Your task to perform on an android device: Go to Wikipedia Image 0: 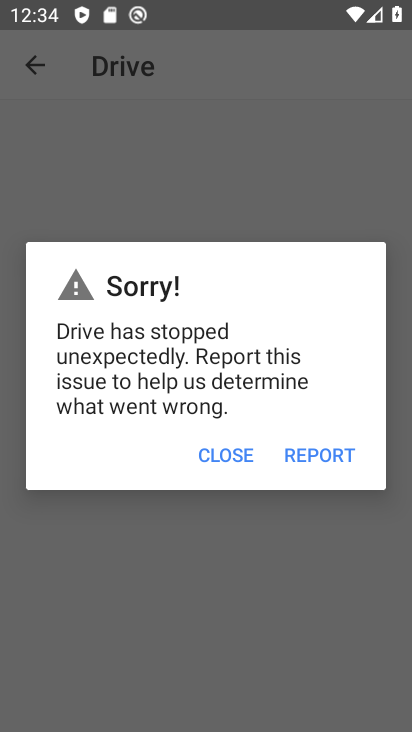
Step 0: press home button
Your task to perform on an android device: Go to Wikipedia Image 1: 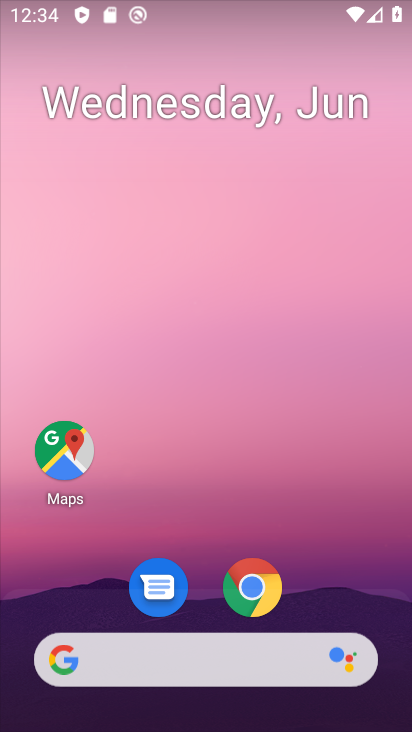
Step 1: click (247, 577)
Your task to perform on an android device: Go to Wikipedia Image 2: 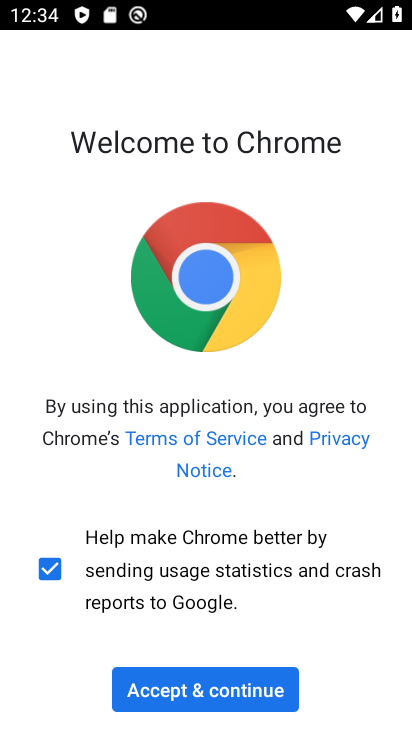
Step 2: click (202, 696)
Your task to perform on an android device: Go to Wikipedia Image 3: 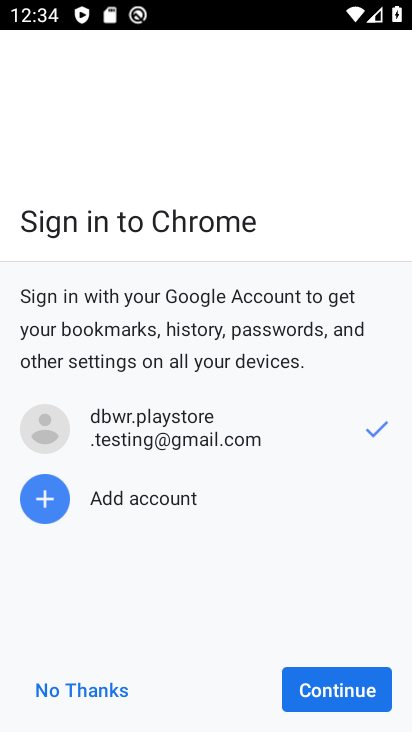
Step 3: click (339, 698)
Your task to perform on an android device: Go to Wikipedia Image 4: 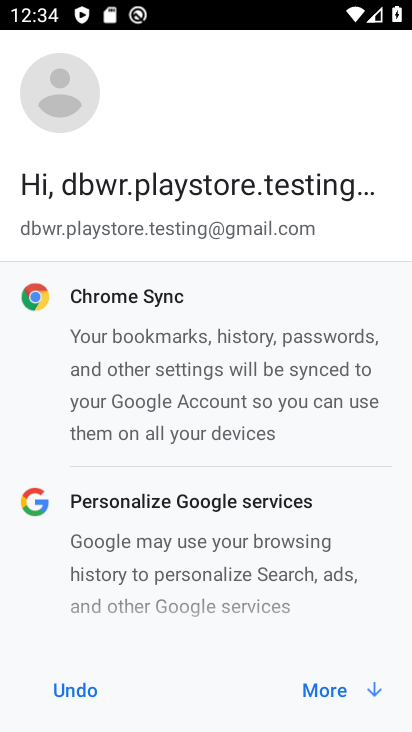
Step 4: click (339, 677)
Your task to perform on an android device: Go to Wikipedia Image 5: 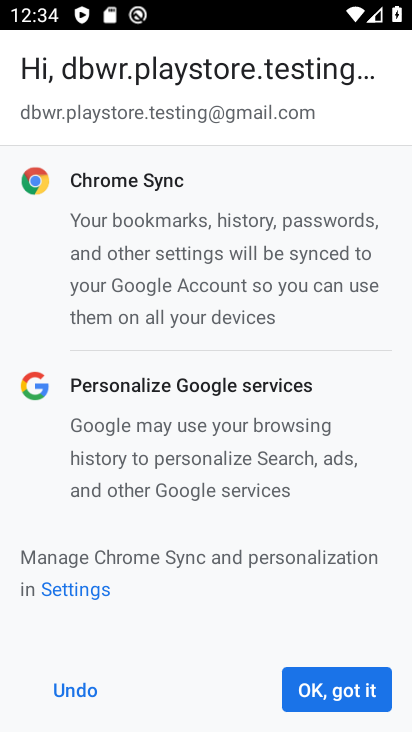
Step 5: click (369, 698)
Your task to perform on an android device: Go to Wikipedia Image 6: 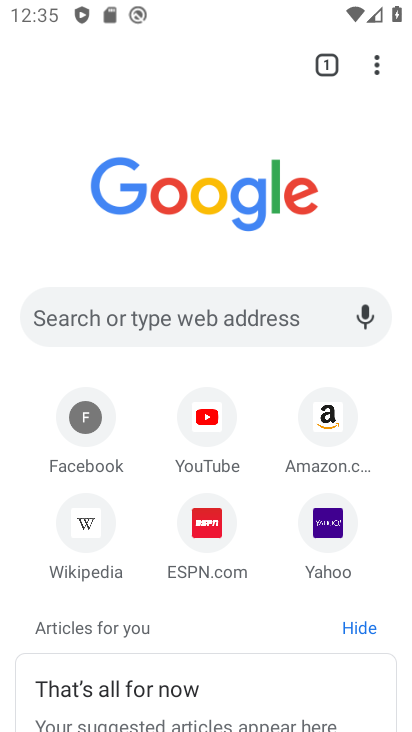
Step 6: click (75, 529)
Your task to perform on an android device: Go to Wikipedia Image 7: 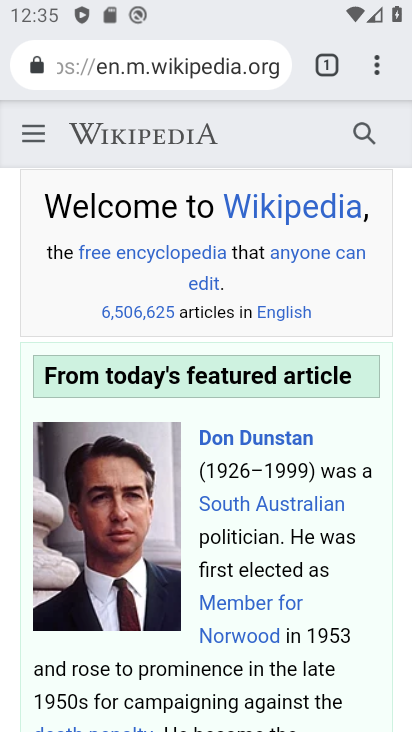
Step 7: task complete